Your task to perform on an android device: open the mobile data screen to see how much data has been used Image 0: 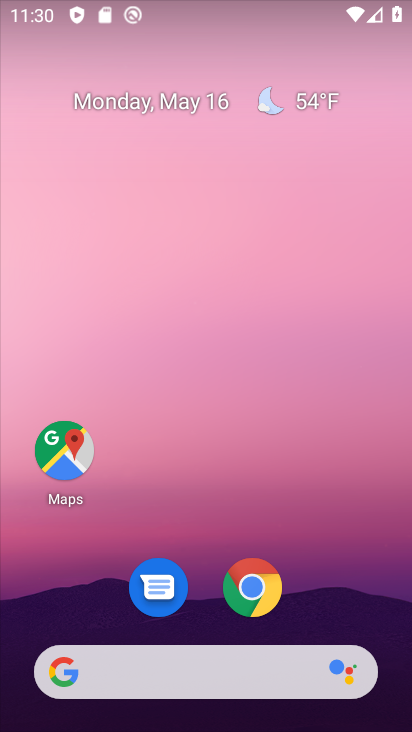
Step 0: drag from (210, 562) to (231, 133)
Your task to perform on an android device: open the mobile data screen to see how much data has been used Image 1: 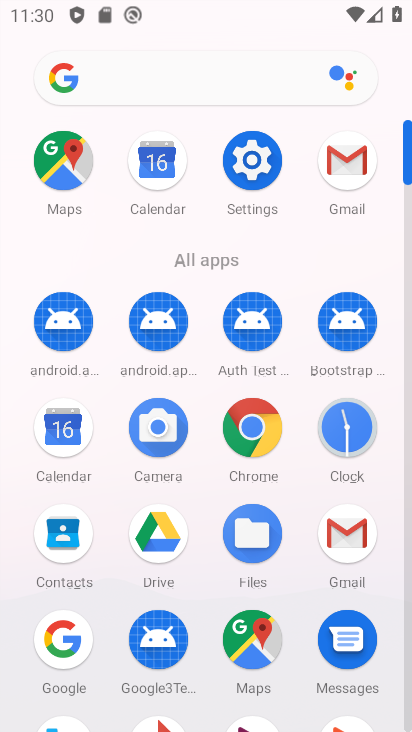
Step 1: click (243, 159)
Your task to perform on an android device: open the mobile data screen to see how much data has been used Image 2: 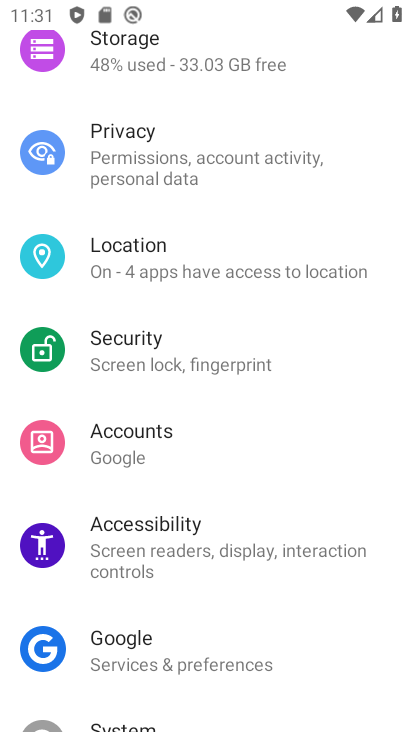
Step 2: drag from (162, 327) to (163, 563)
Your task to perform on an android device: open the mobile data screen to see how much data has been used Image 3: 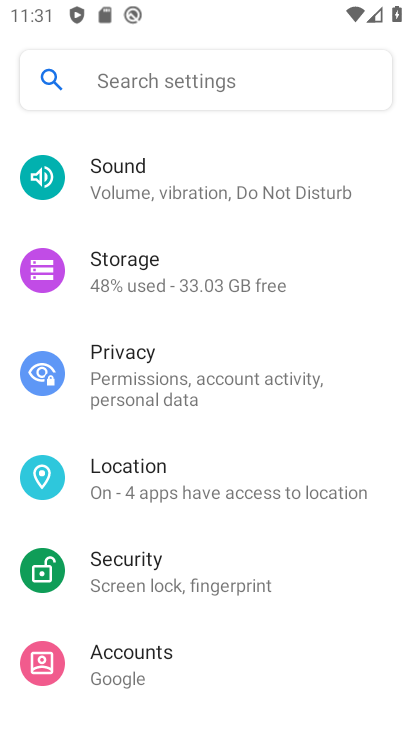
Step 3: drag from (163, 332) to (187, 582)
Your task to perform on an android device: open the mobile data screen to see how much data has been used Image 4: 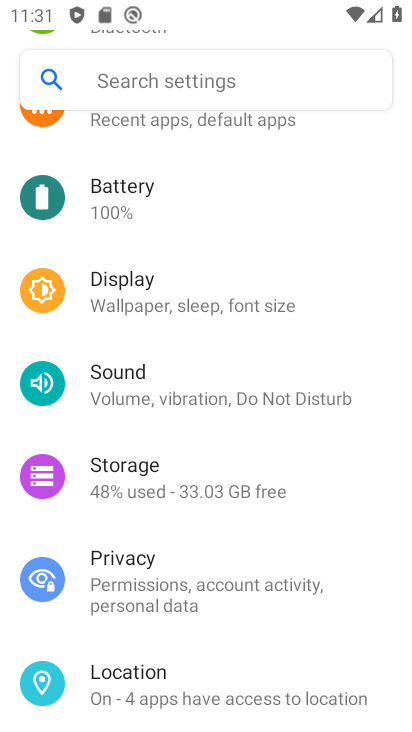
Step 4: drag from (192, 171) to (236, 500)
Your task to perform on an android device: open the mobile data screen to see how much data has been used Image 5: 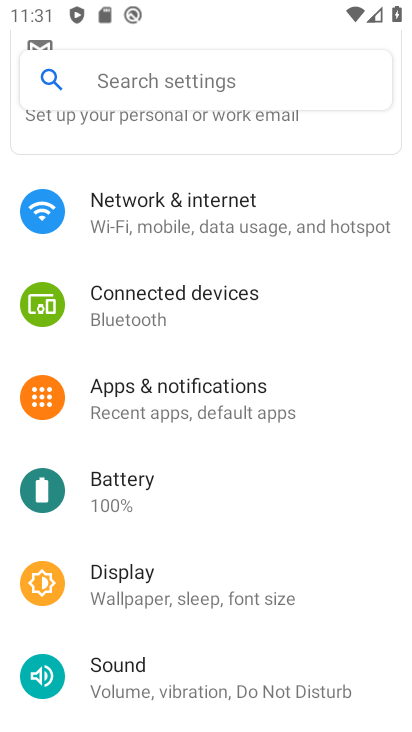
Step 5: click (223, 241)
Your task to perform on an android device: open the mobile data screen to see how much data has been used Image 6: 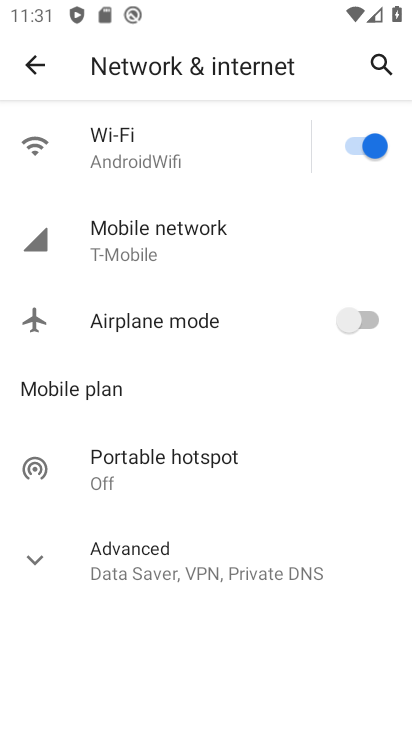
Step 6: click (222, 241)
Your task to perform on an android device: open the mobile data screen to see how much data has been used Image 7: 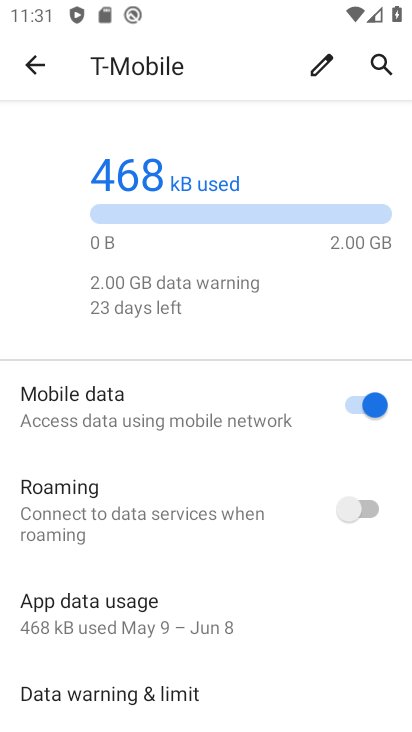
Step 7: click (142, 615)
Your task to perform on an android device: open the mobile data screen to see how much data has been used Image 8: 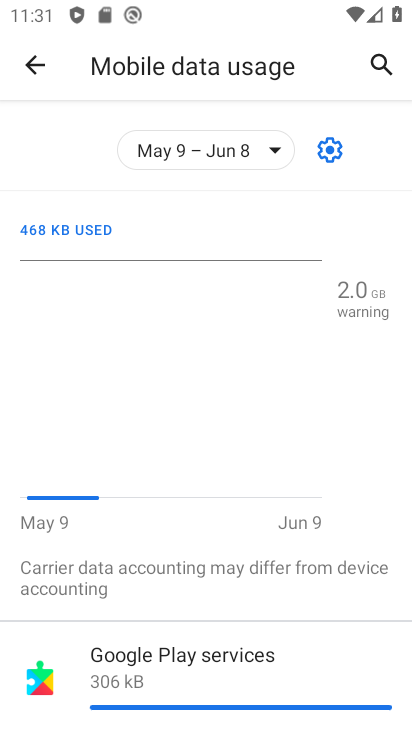
Step 8: task complete